Your task to perform on an android device: turn on airplane mode Image 0: 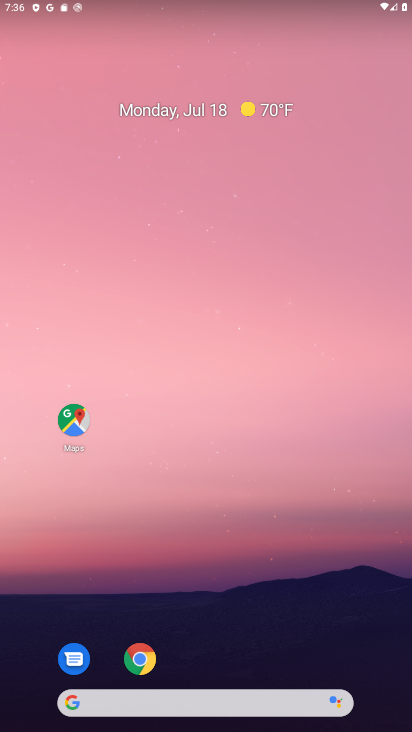
Step 0: drag from (195, 712) to (150, 169)
Your task to perform on an android device: turn on airplane mode Image 1: 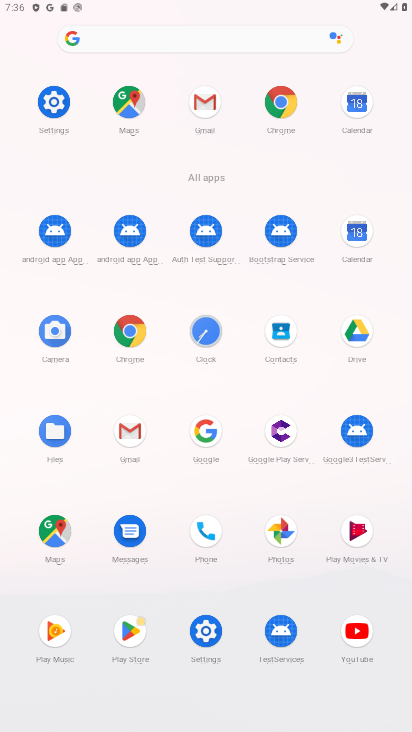
Step 1: click (54, 102)
Your task to perform on an android device: turn on airplane mode Image 2: 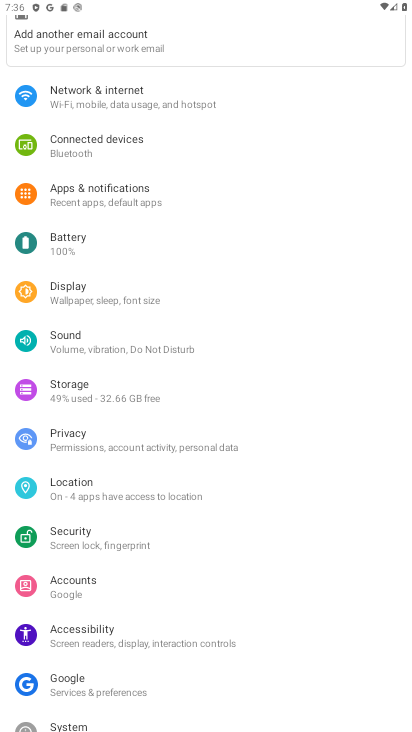
Step 2: click (123, 105)
Your task to perform on an android device: turn on airplane mode Image 3: 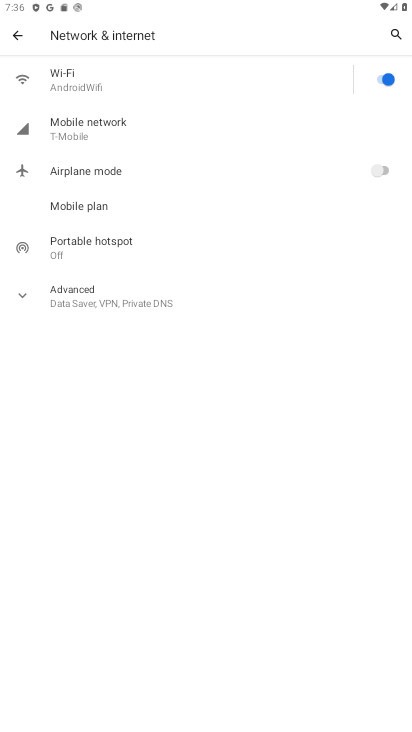
Step 3: click (383, 170)
Your task to perform on an android device: turn on airplane mode Image 4: 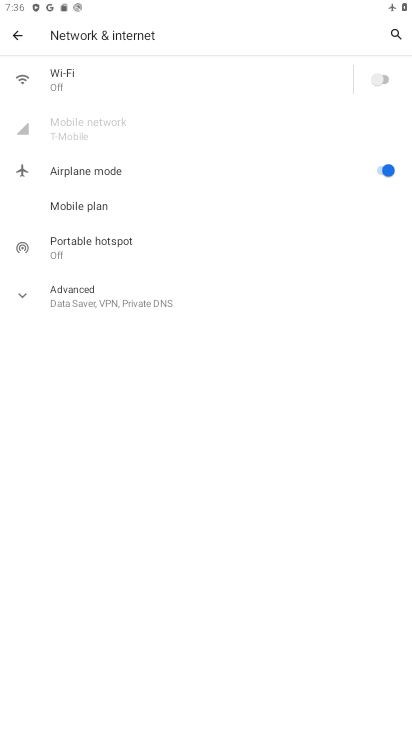
Step 4: task complete